Your task to perform on an android device: star an email in the gmail app Image 0: 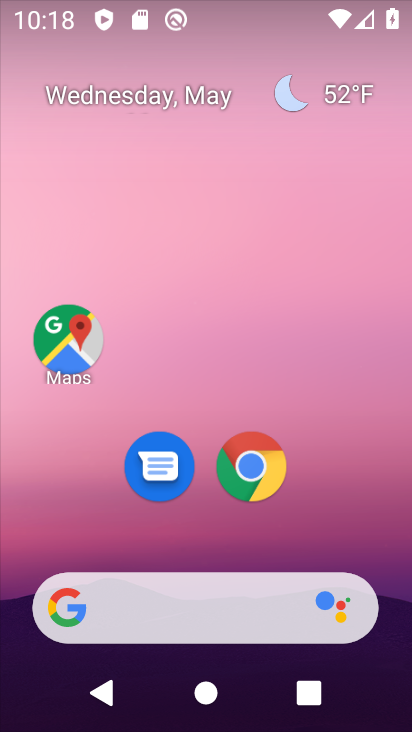
Step 0: drag from (203, 522) to (209, 97)
Your task to perform on an android device: star an email in the gmail app Image 1: 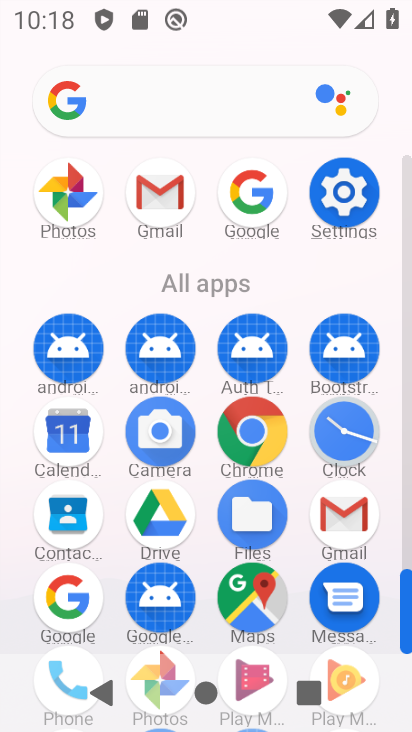
Step 1: click (152, 192)
Your task to perform on an android device: star an email in the gmail app Image 2: 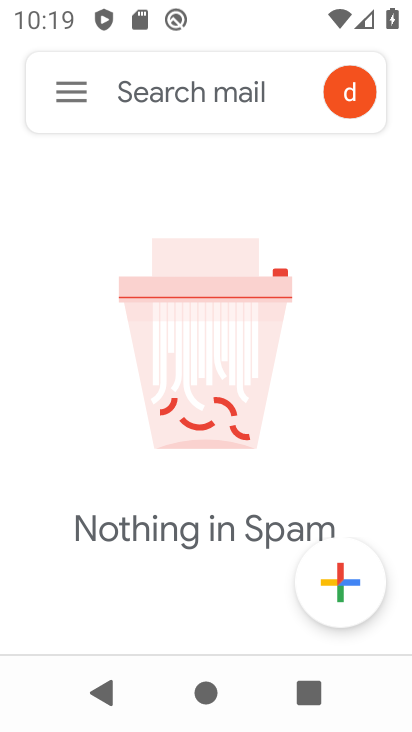
Step 2: click (65, 91)
Your task to perform on an android device: star an email in the gmail app Image 3: 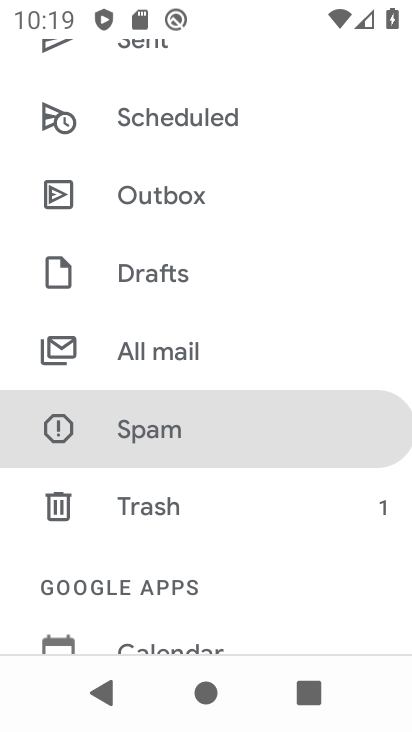
Step 3: click (176, 352)
Your task to perform on an android device: star an email in the gmail app Image 4: 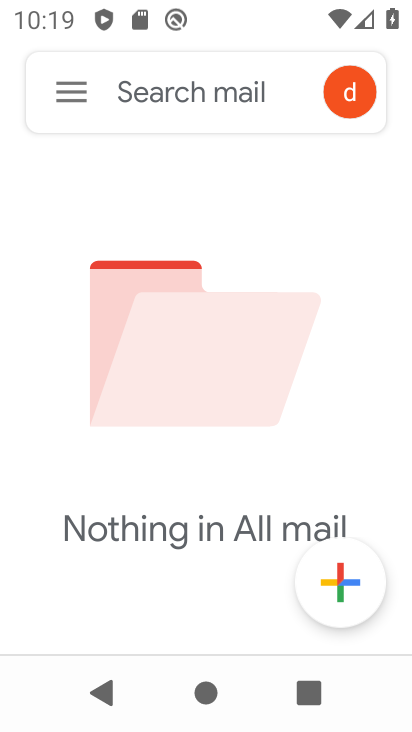
Step 4: task complete